Your task to perform on an android device: open chrome privacy settings Image 0: 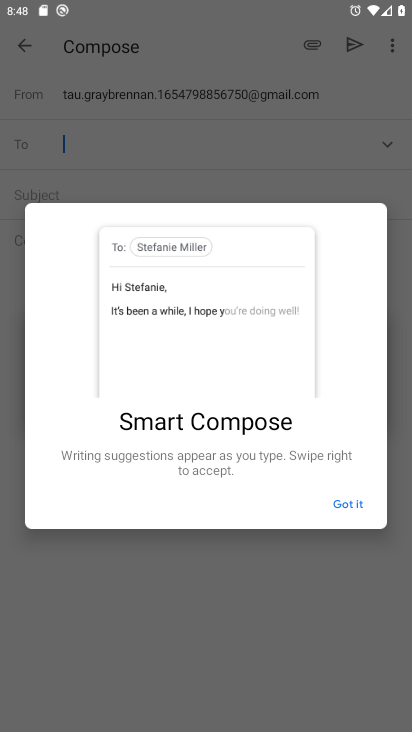
Step 0: press home button
Your task to perform on an android device: open chrome privacy settings Image 1: 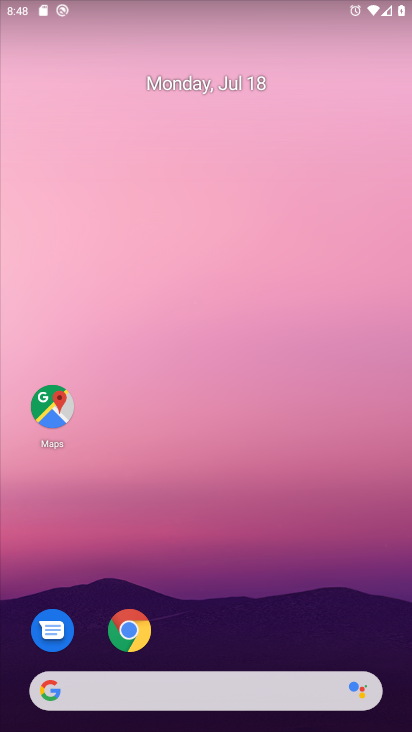
Step 1: click (137, 629)
Your task to perform on an android device: open chrome privacy settings Image 2: 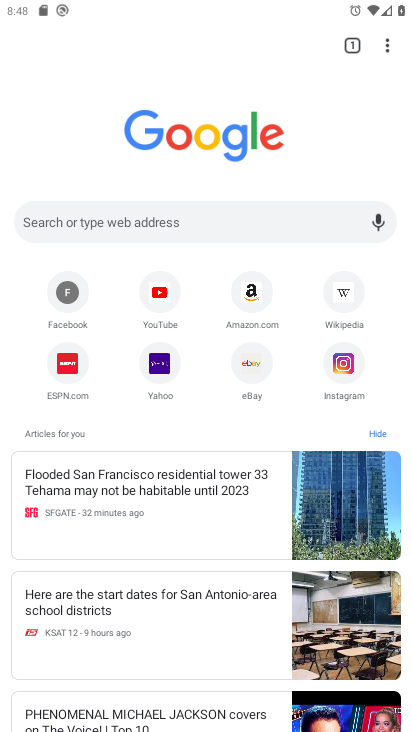
Step 2: click (382, 53)
Your task to perform on an android device: open chrome privacy settings Image 3: 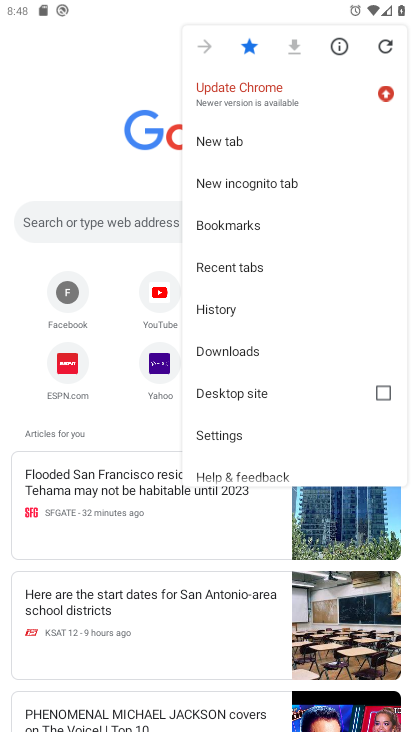
Step 3: click (238, 429)
Your task to perform on an android device: open chrome privacy settings Image 4: 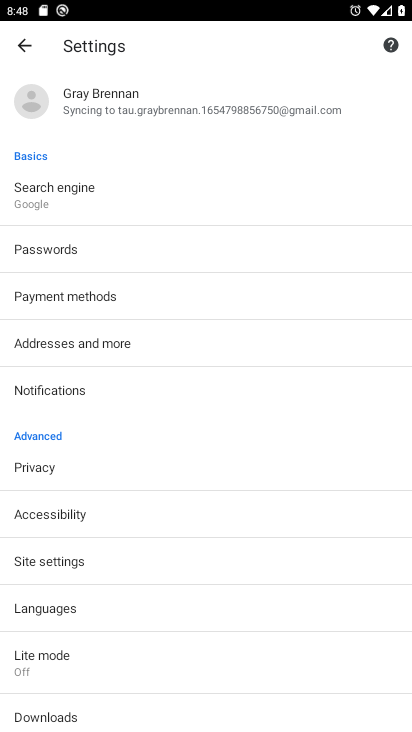
Step 4: click (78, 475)
Your task to perform on an android device: open chrome privacy settings Image 5: 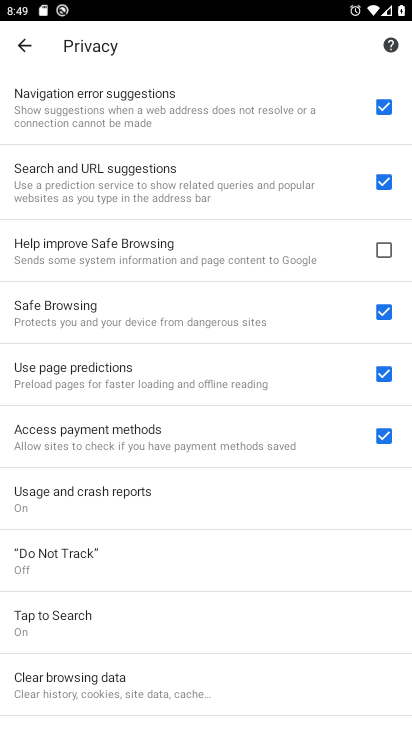
Step 5: task complete